Your task to perform on an android device: clear history in the chrome app Image 0: 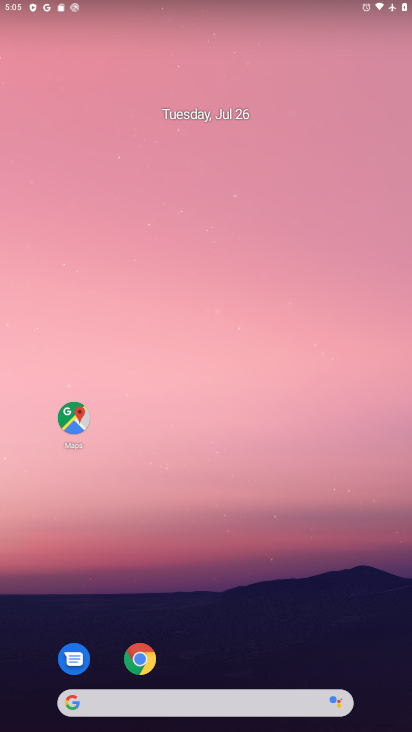
Step 0: press home button
Your task to perform on an android device: clear history in the chrome app Image 1: 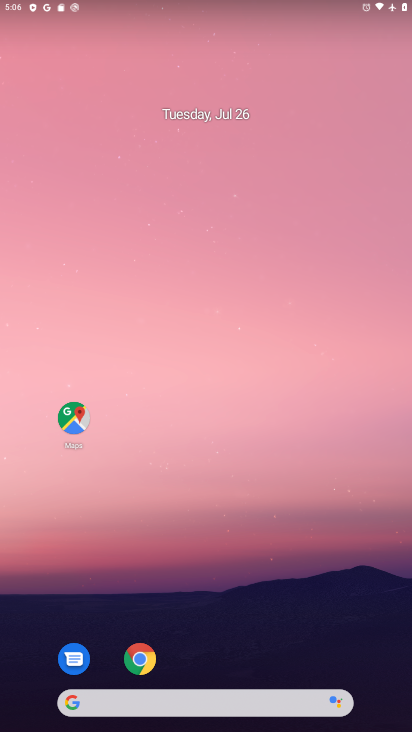
Step 1: click (146, 654)
Your task to perform on an android device: clear history in the chrome app Image 2: 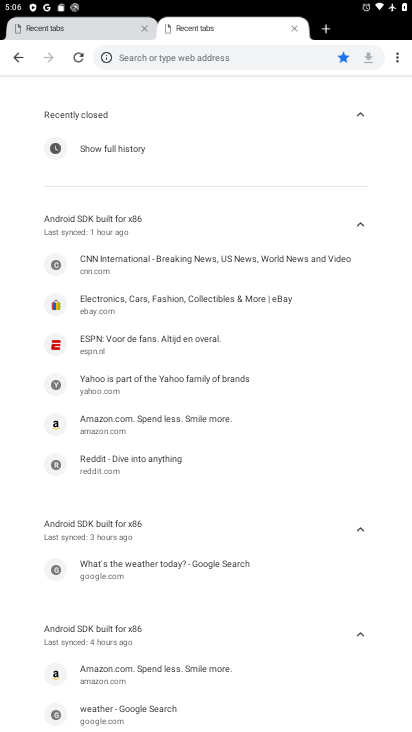
Step 2: click (390, 47)
Your task to perform on an android device: clear history in the chrome app Image 3: 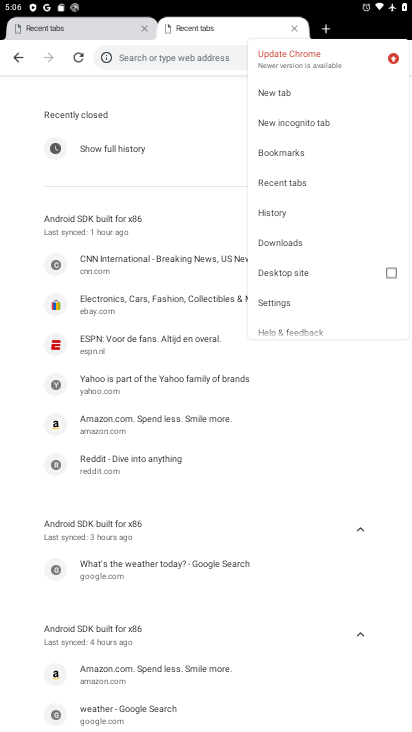
Step 3: click (289, 212)
Your task to perform on an android device: clear history in the chrome app Image 4: 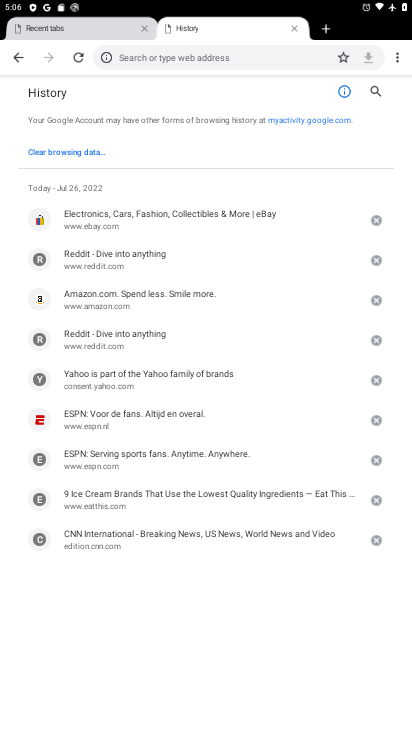
Step 4: click (82, 153)
Your task to perform on an android device: clear history in the chrome app Image 5: 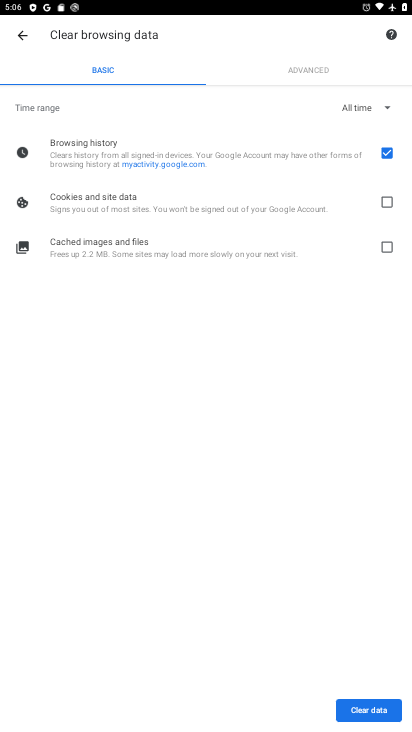
Step 5: click (386, 202)
Your task to perform on an android device: clear history in the chrome app Image 6: 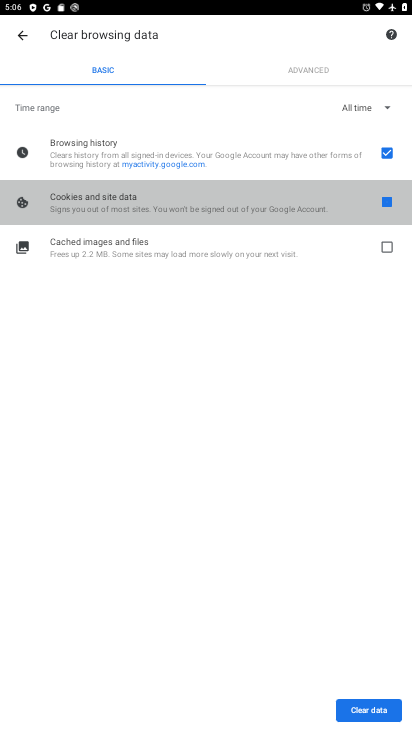
Step 6: click (386, 242)
Your task to perform on an android device: clear history in the chrome app Image 7: 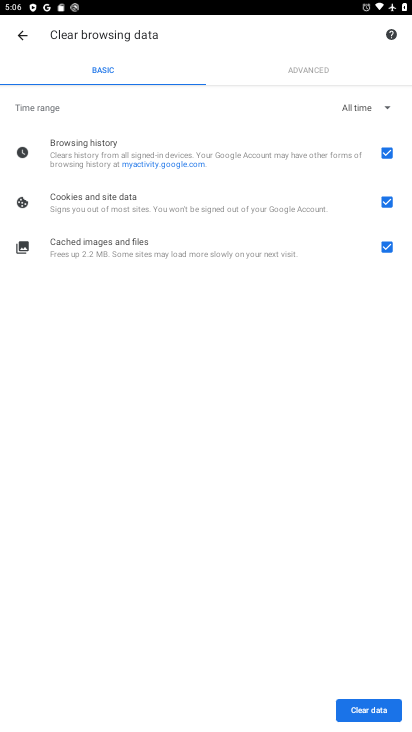
Step 7: click (374, 706)
Your task to perform on an android device: clear history in the chrome app Image 8: 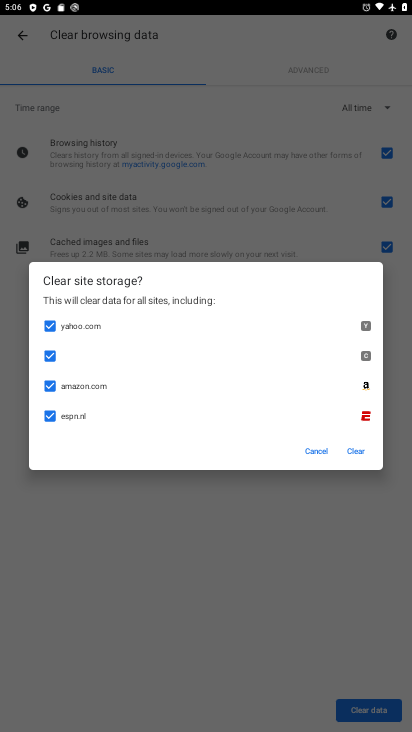
Step 8: click (359, 451)
Your task to perform on an android device: clear history in the chrome app Image 9: 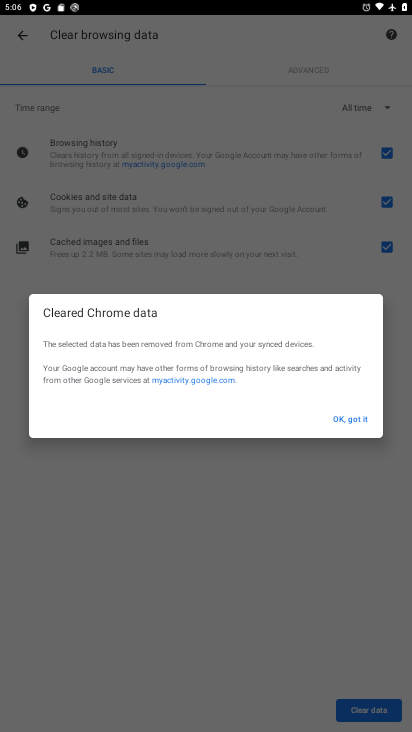
Step 9: click (355, 416)
Your task to perform on an android device: clear history in the chrome app Image 10: 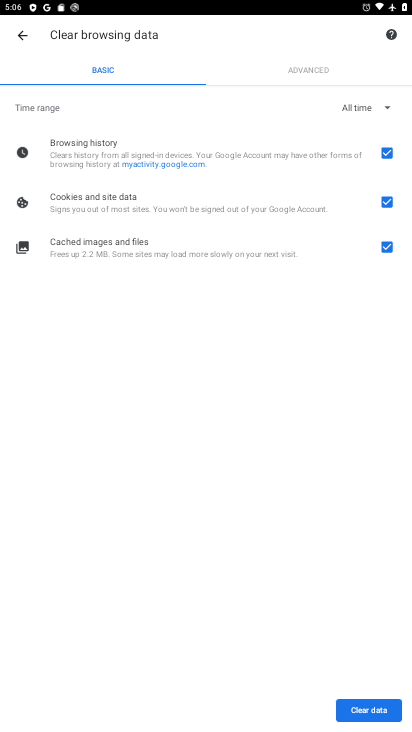
Step 10: task complete